Your task to perform on an android device: Clear the shopping cart on target. Add logitech g502 to the cart on target Image 0: 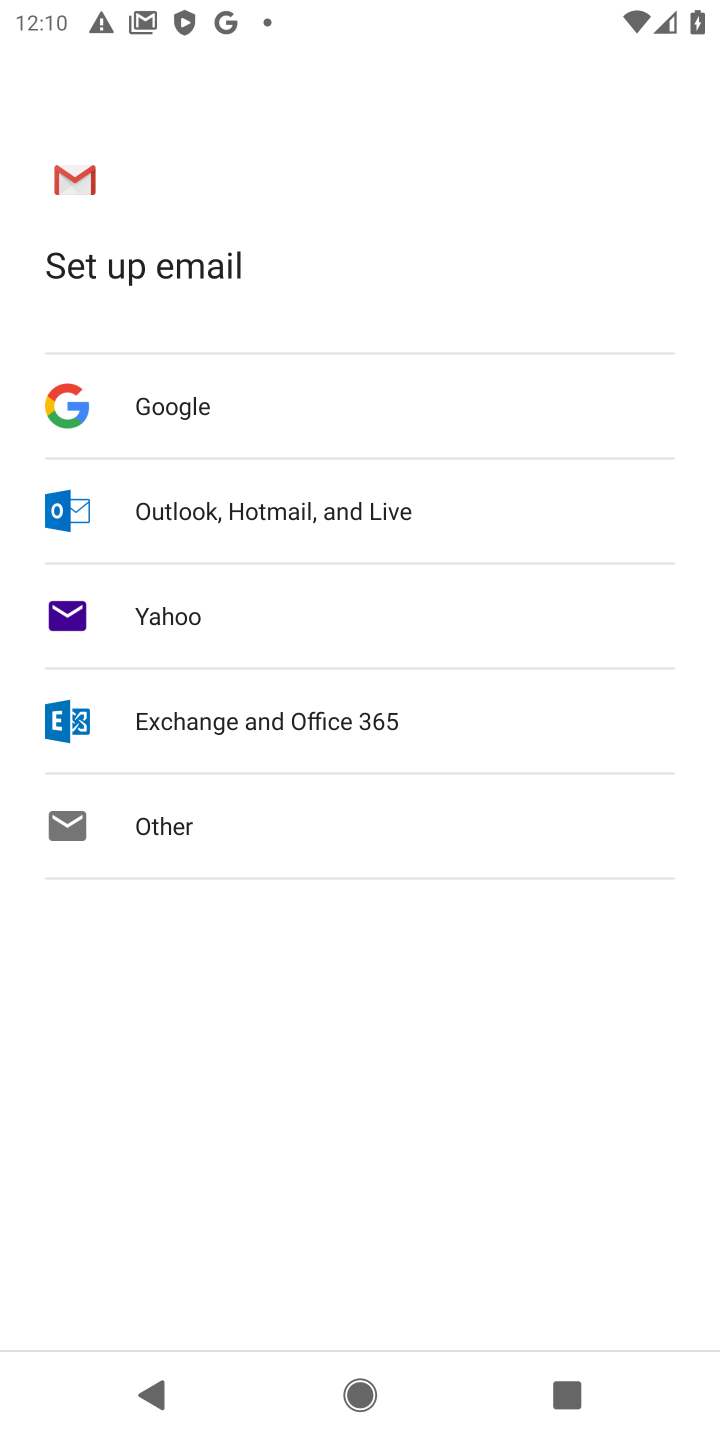
Step 0: press home button
Your task to perform on an android device: Clear the shopping cart on target. Add logitech g502 to the cart on target Image 1: 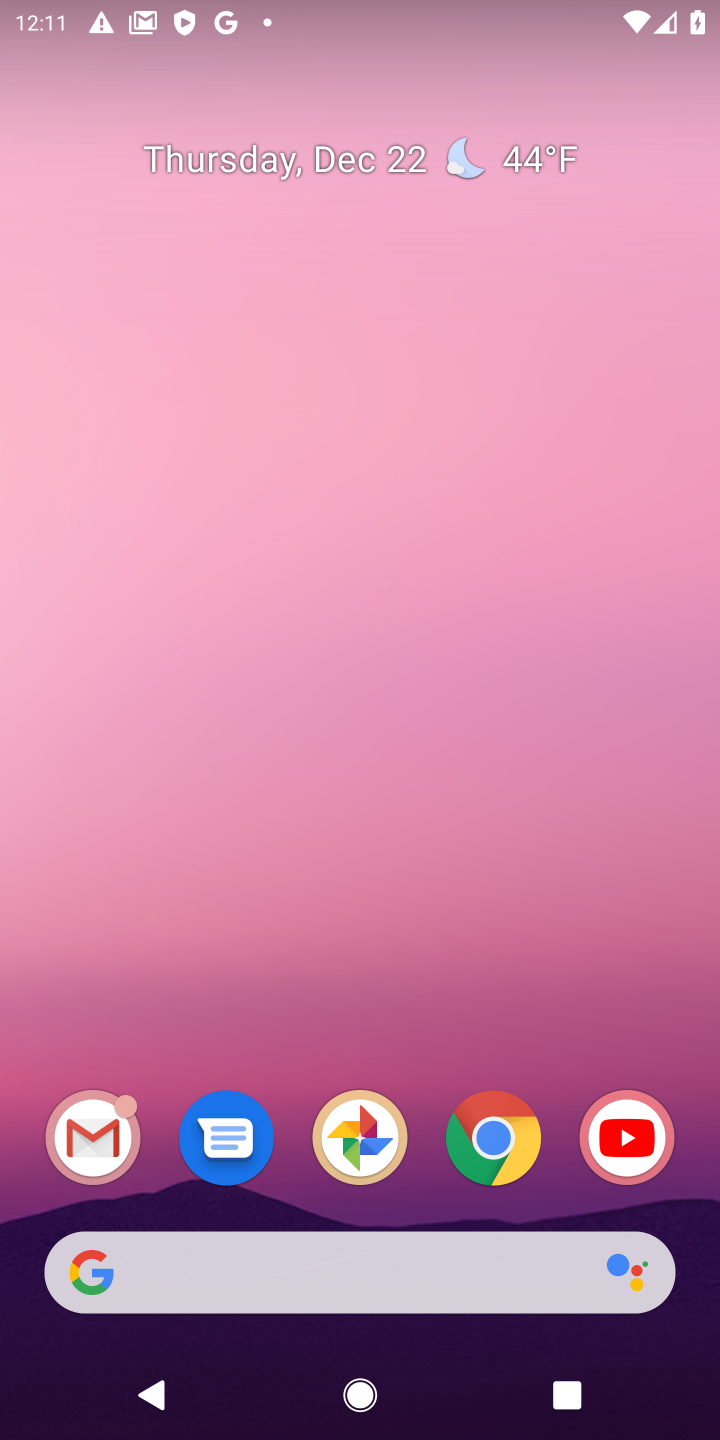
Step 1: click (478, 1140)
Your task to perform on an android device: Clear the shopping cart on target. Add logitech g502 to the cart on target Image 2: 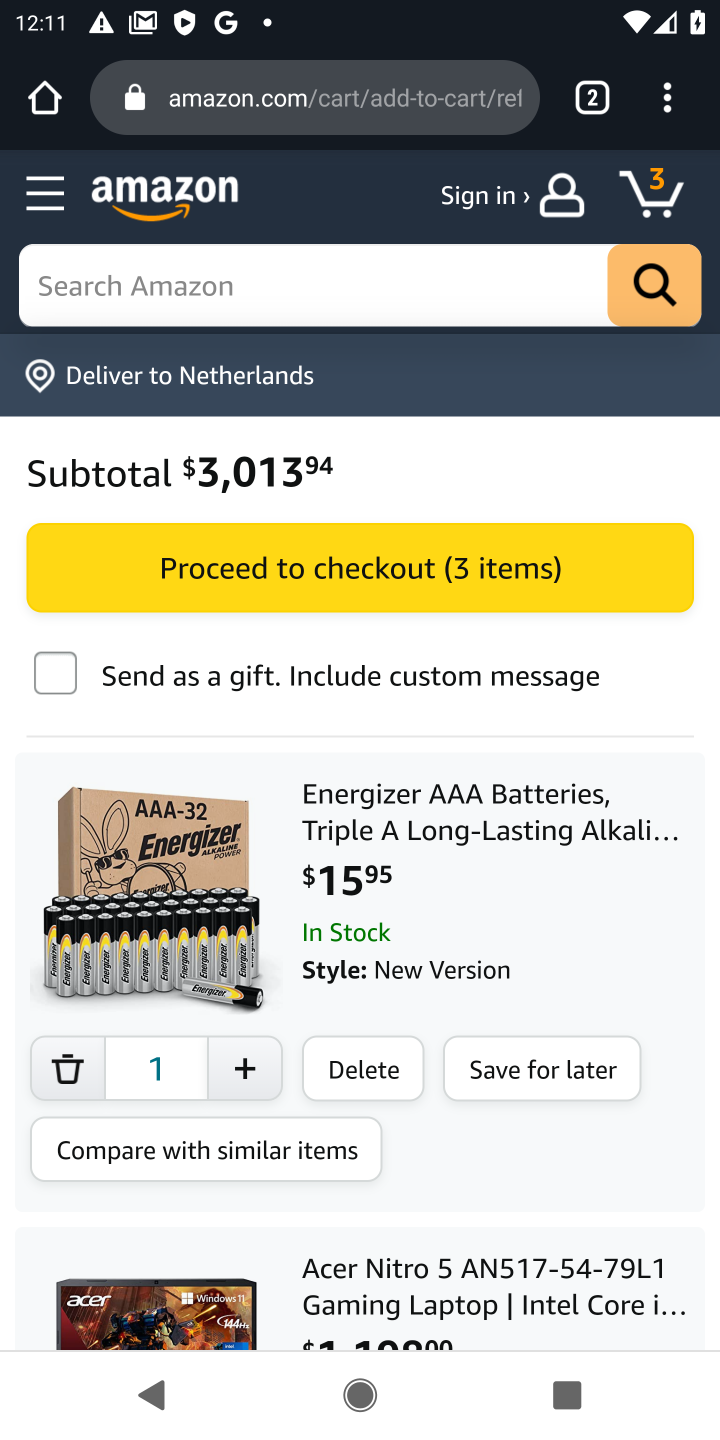
Step 2: click (244, 103)
Your task to perform on an android device: Clear the shopping cart on target. Add logitech g502 to the cart on target Image 3: 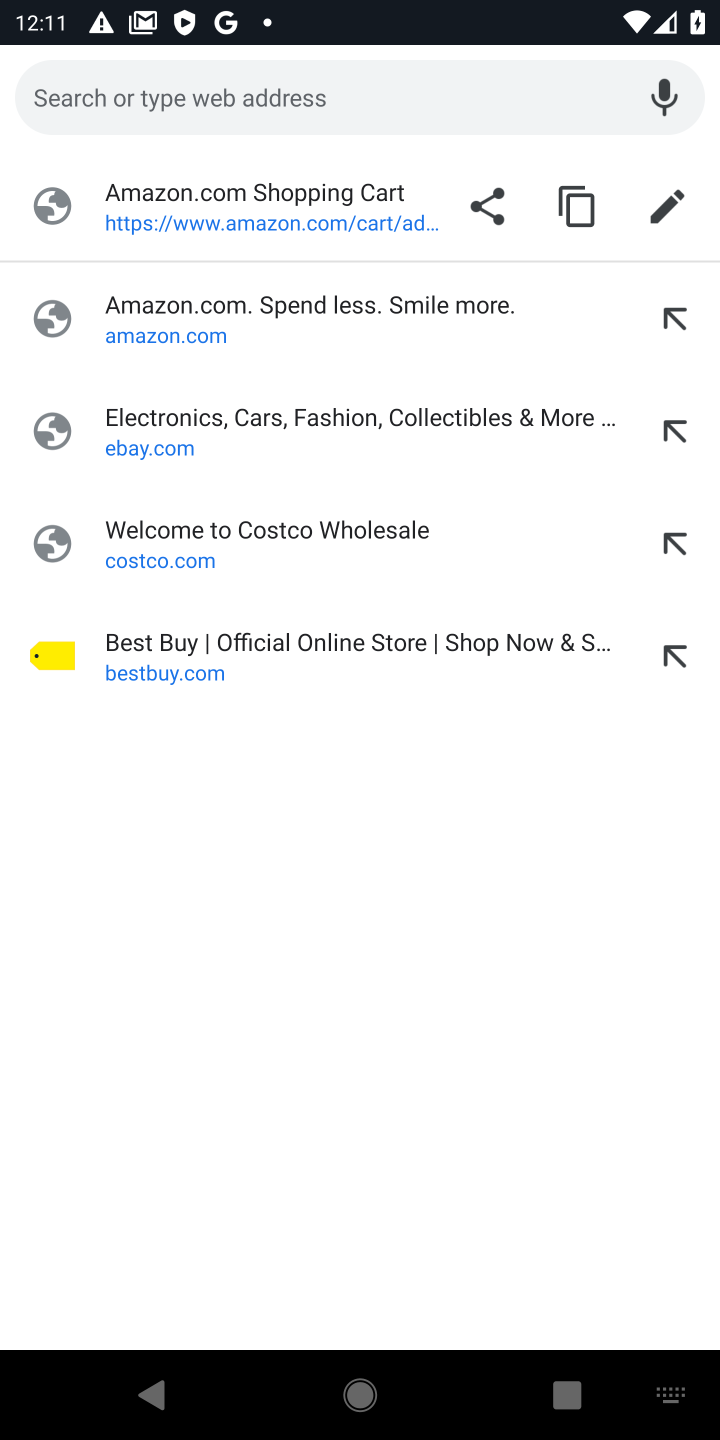
Step 3: type "target.com"
Your task to perform on an android device: Clear the shopping cart on target. Add logitech g502 to the cart on target Image 4: 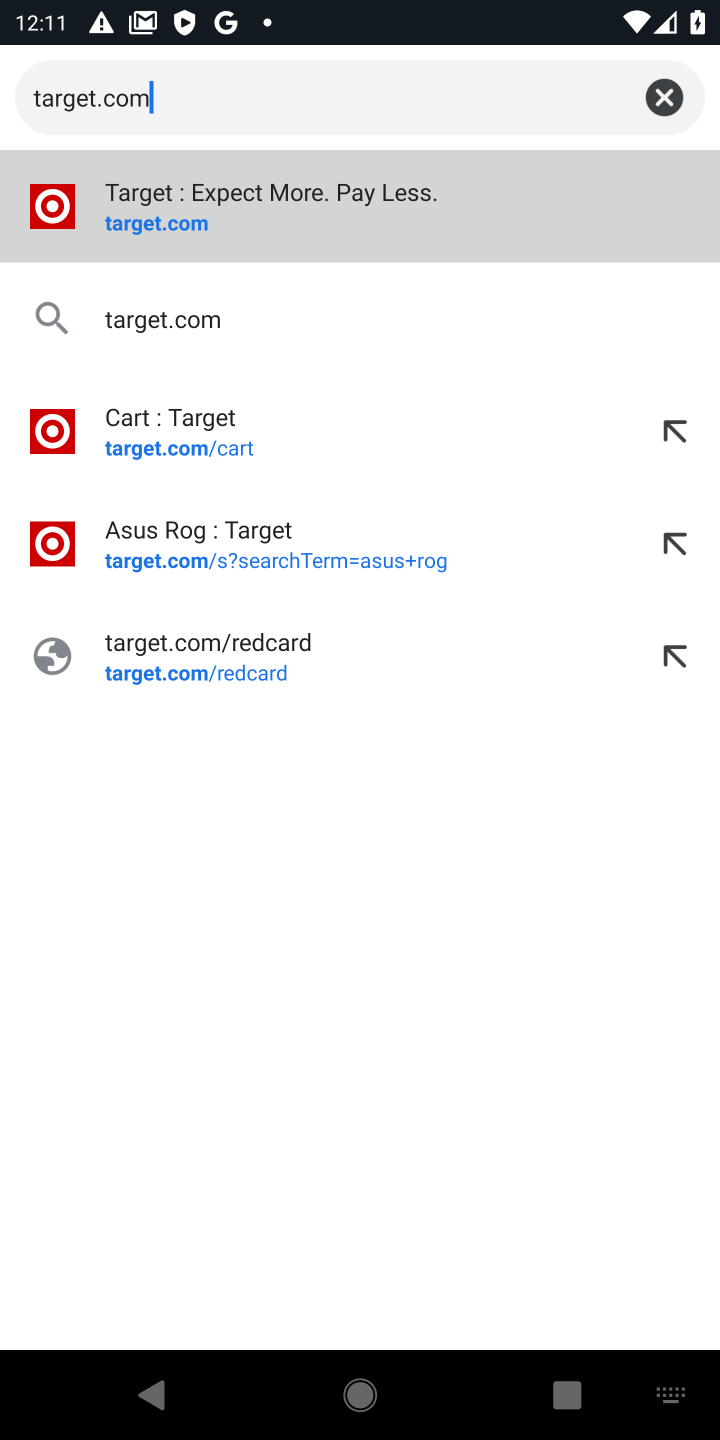
Step 4: click (144, 229)
Your task to perform on an android device: Clear the shopping cart on target. Add logitech g502 to the cart on target Image 5: 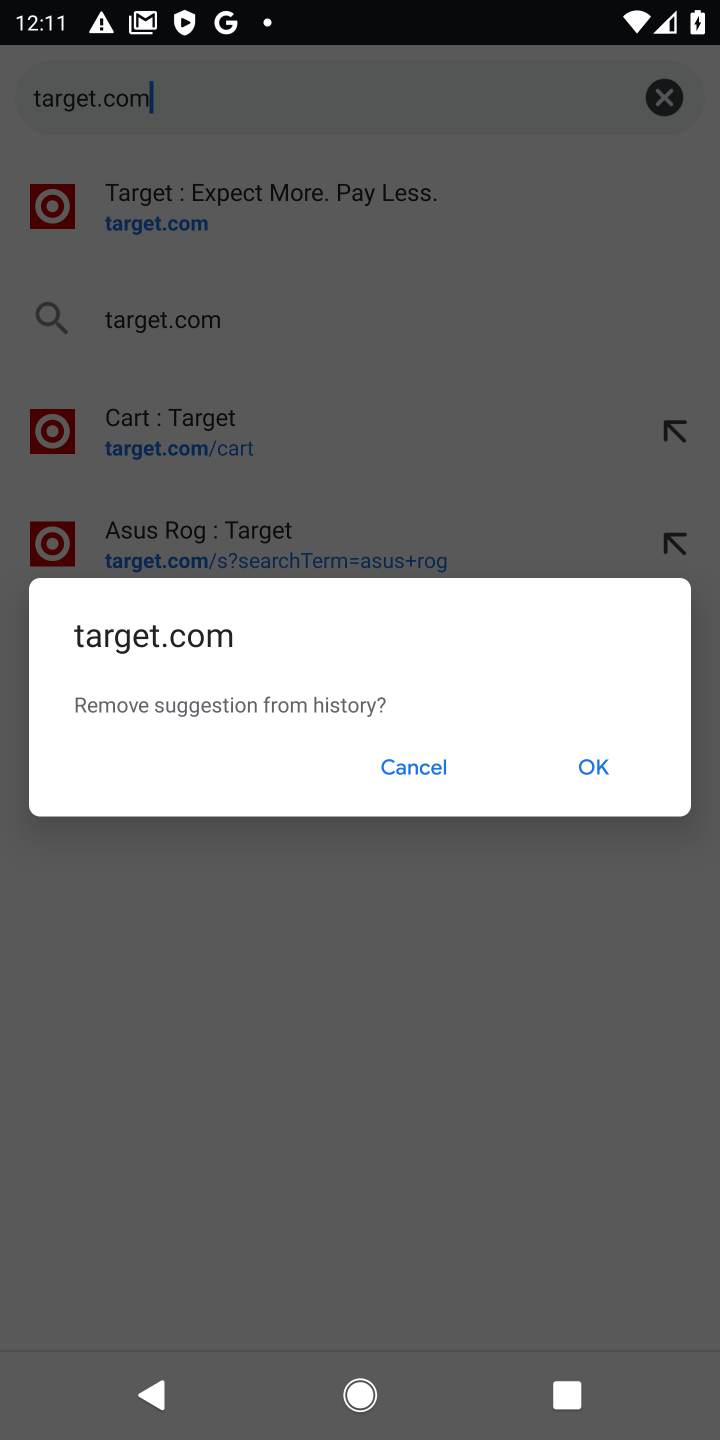
Step 5: click (382, 770)
Your task to perform on an android device: Clear the shopping cart on target. Add logitech g502 to the cart on target Image 6: 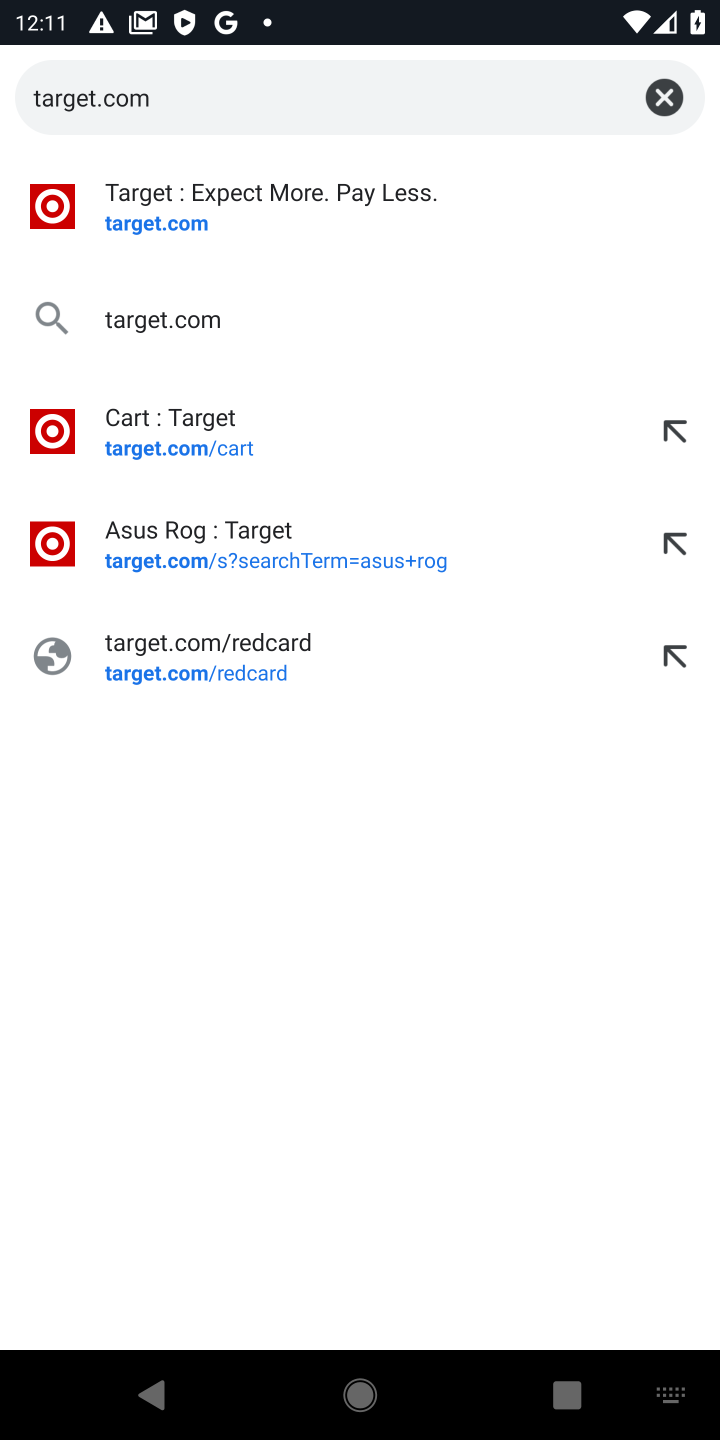
Step 6: click (140, 210)
Your task to perform on an android device: Clear the shopping cart on target. Add logitech g502 to the cart on target Image 7: 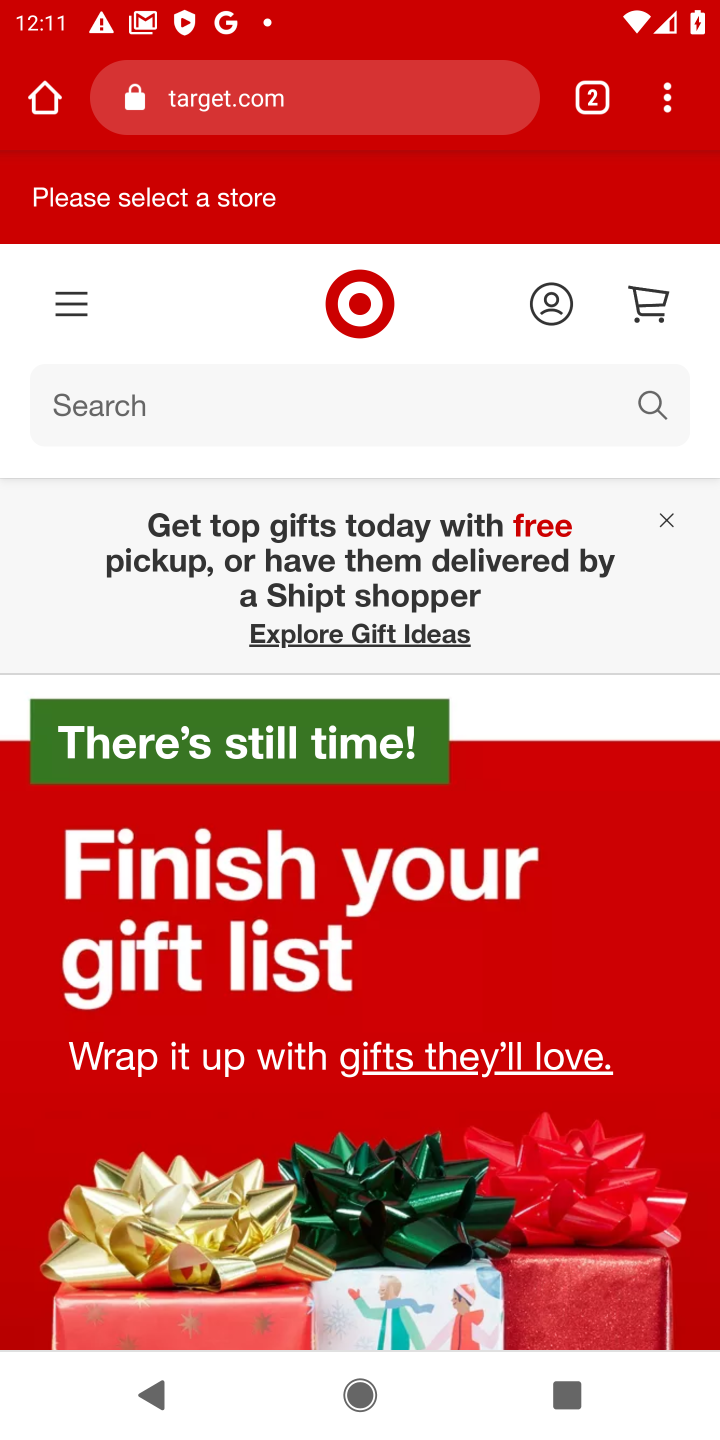
Step 7: click (653, 314)
Your task to perform on an android device: Clear the shopping cart on target. Add logitech g502 to the cart on target Image 8: 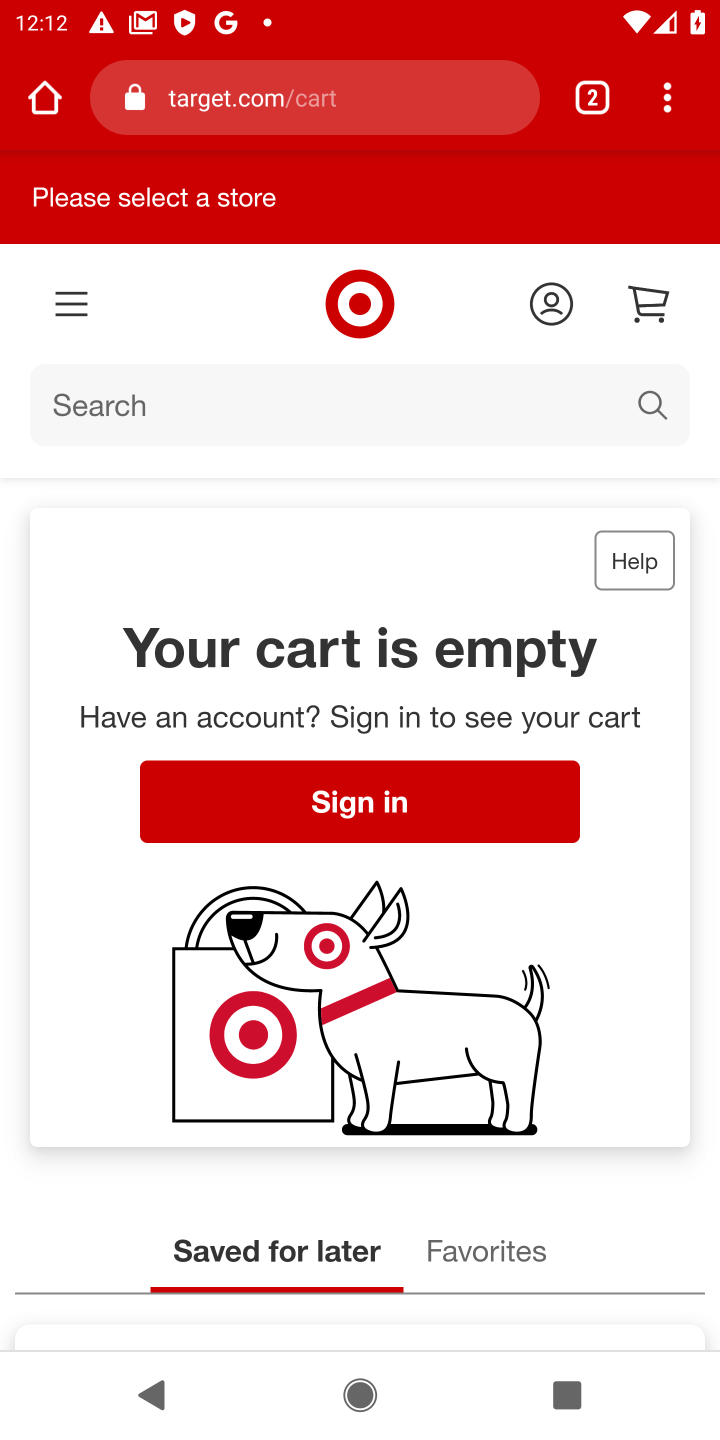
Step 8: click (88, 405)
Your task to perform on an android device: Clear the shopping cart on target. Add logitech g502 to the cart on target Image 9: 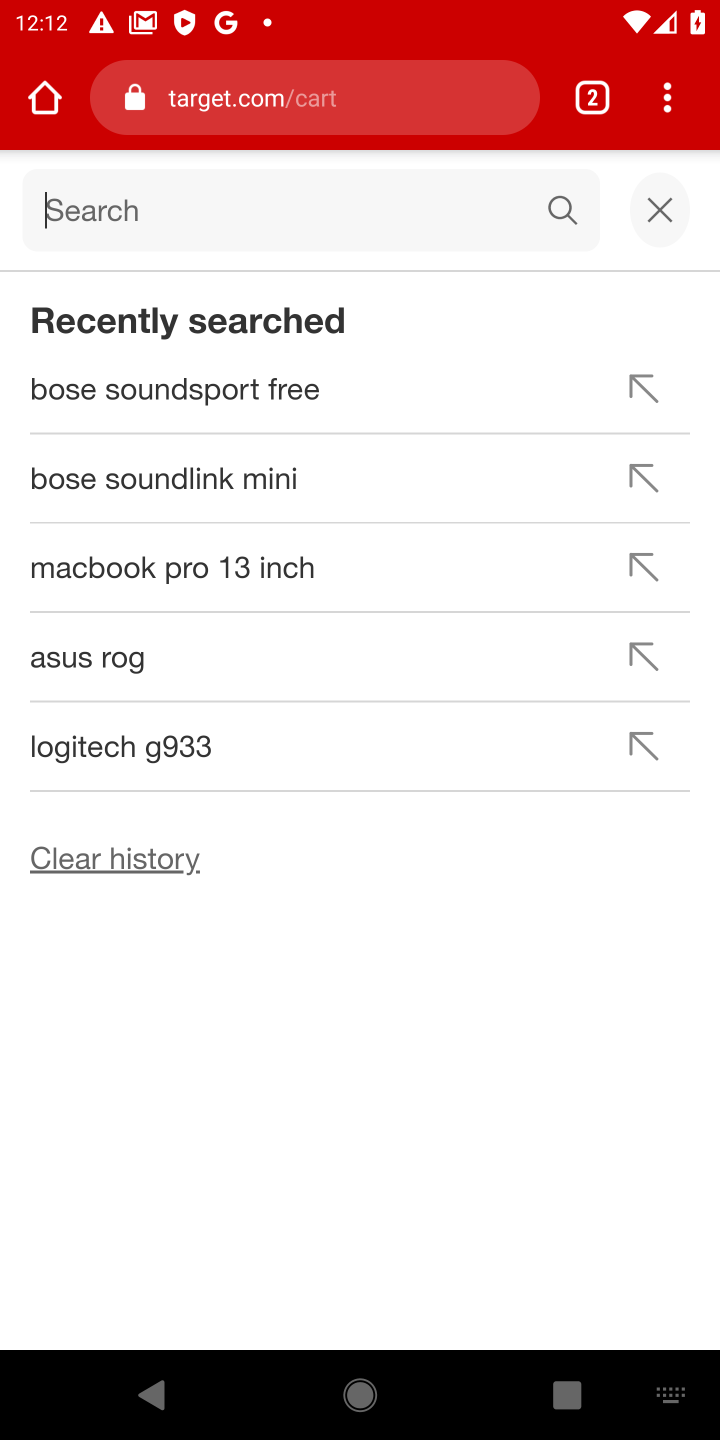
Step 9: type "logitech g502 "
Your task to perform on an android device: Clear the shopping cart on target. Add logitech g502 to the cart on target Image 10: 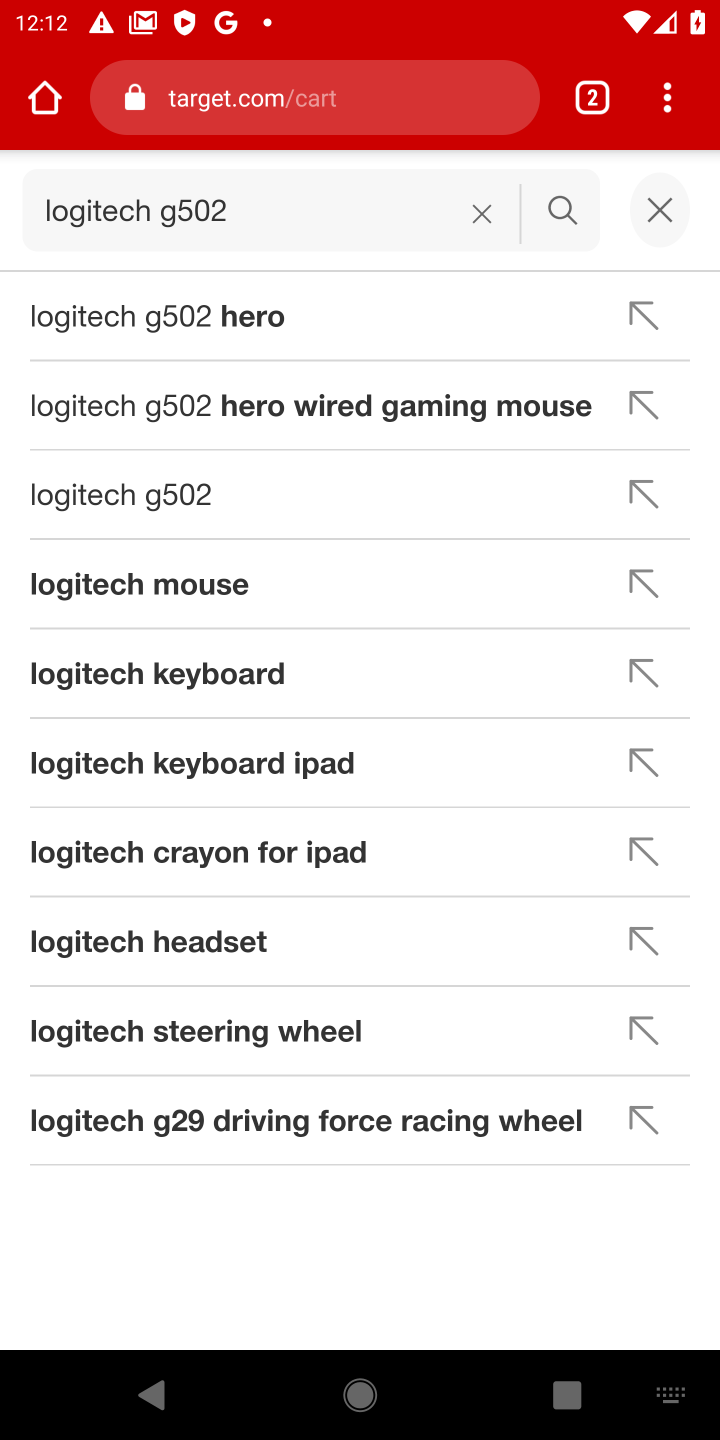
Step 10: click (130, 512)
Your task to perform on an android device: Clear the shopping cart on target. Add logitech g502 to the cart on target Image 11: 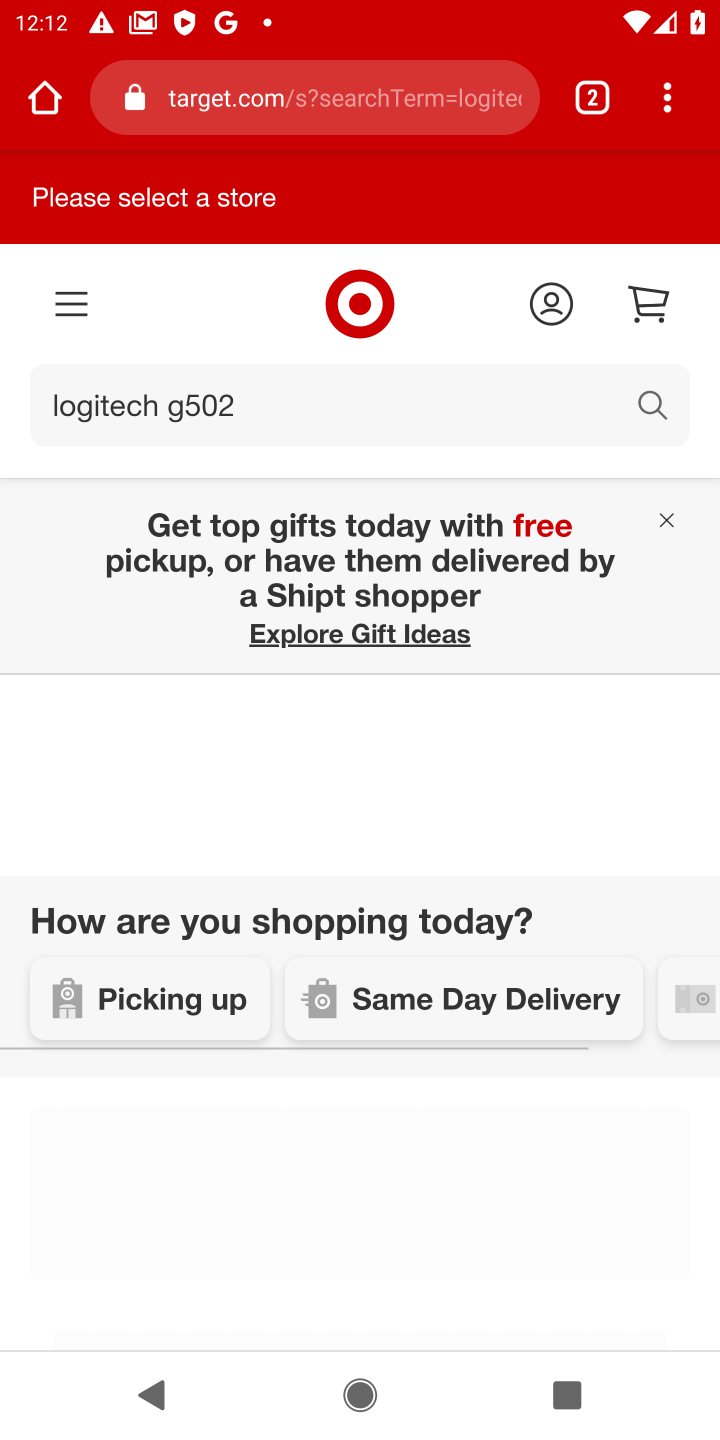
Step 11: drag from (330, 1022) to (296, 587)
Your task to perform on an android device: Clear the shopping cart on target. Add logitech g502 to the cart on target Image 12: 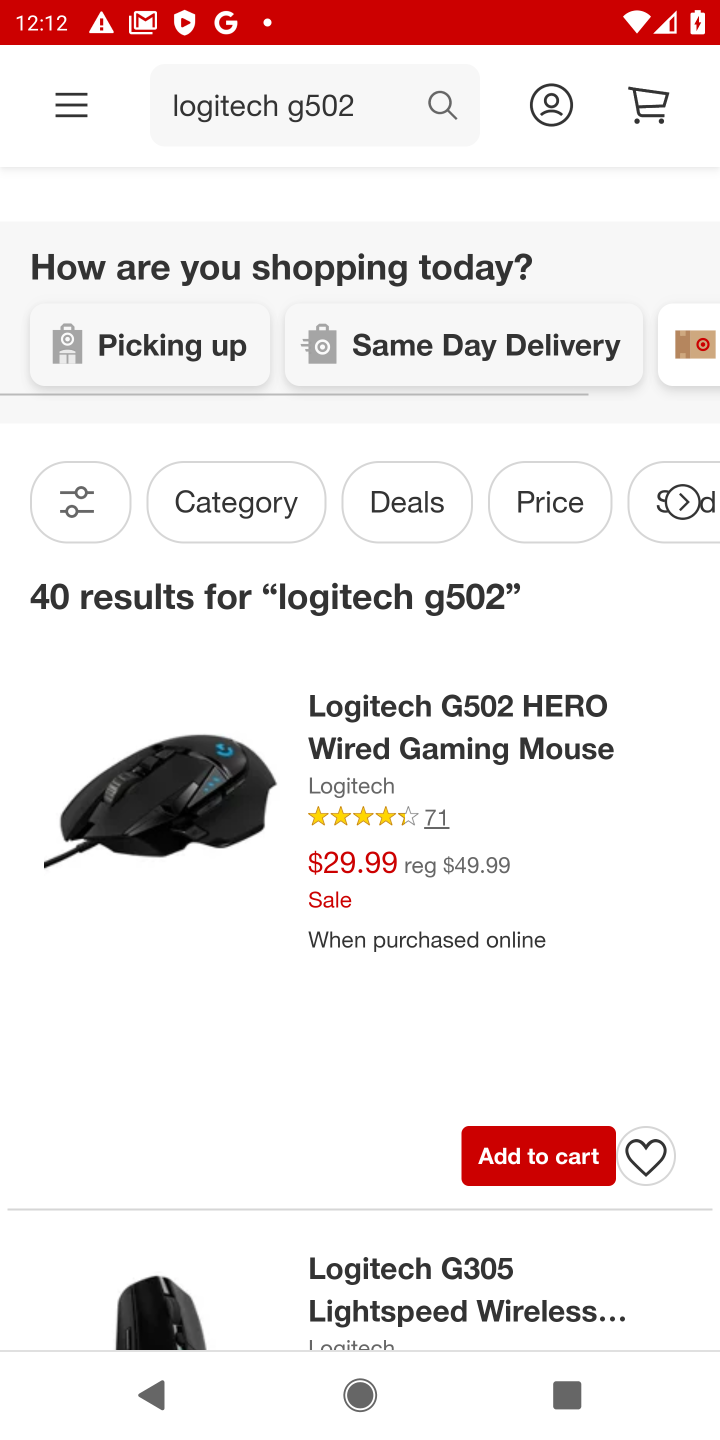
Step 12: click (526, 1170)
Your task to perform on an android device: Clear the shopping cart on target. Add logitech g502 to the cart on target Image 13: 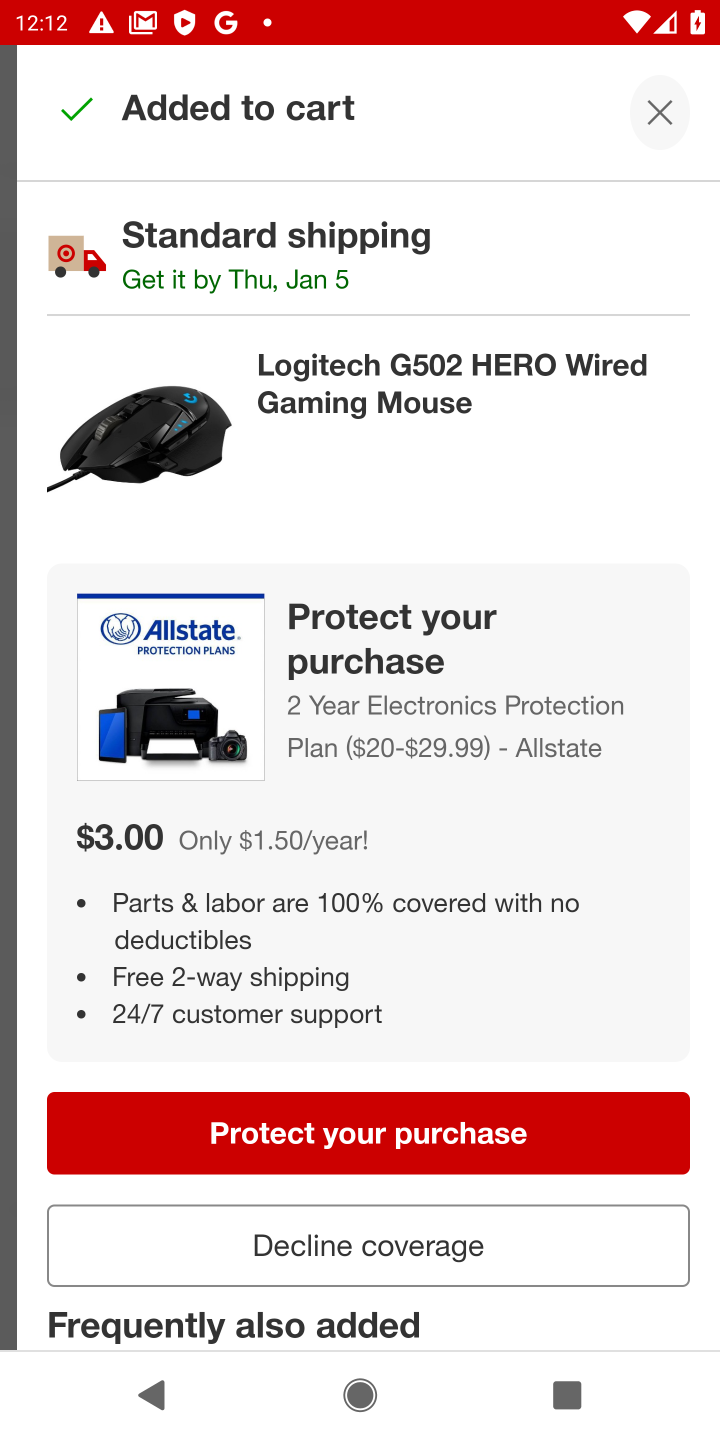
Step 13: task complete